Your task to perform on an android device: toggle translation in the chrome app Image 0: 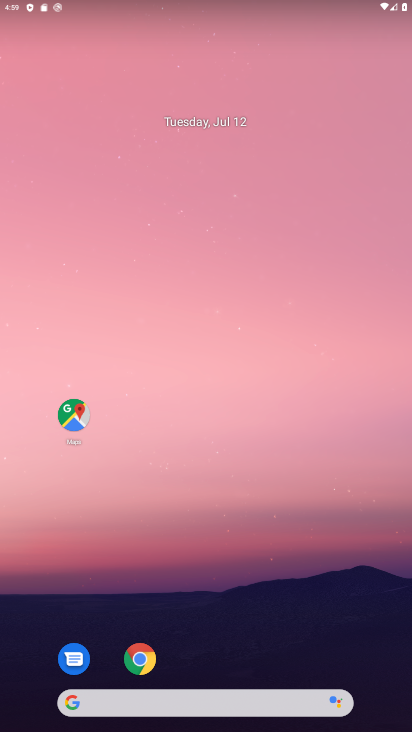
Step 0: click (140, 660)
Your task to perform on an android device: toggle translation in the chrome app Image 1: 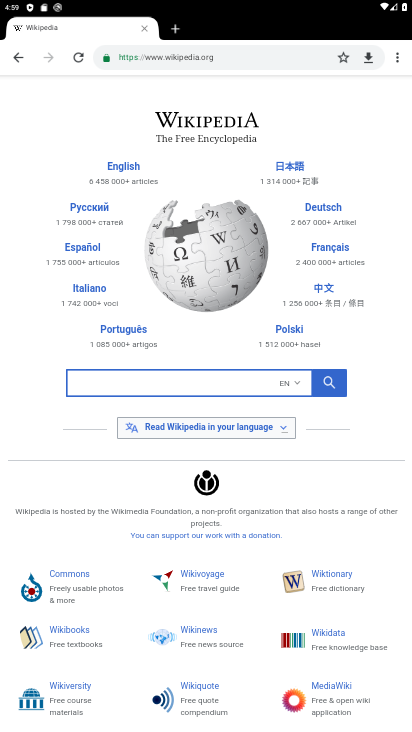
Step 1: click (400, 63)
Your task to perform on an android device: toggle translation in the chrome app Image 2: 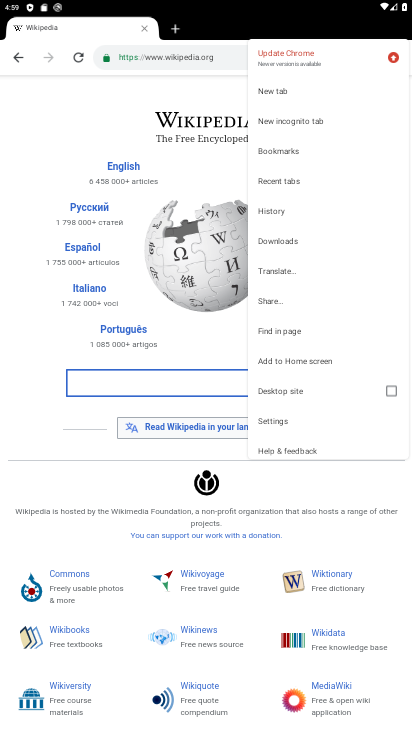
Step 2: click (273, 423)
Your task to perform on an android device: toggle translation in the chrome app Image 3: 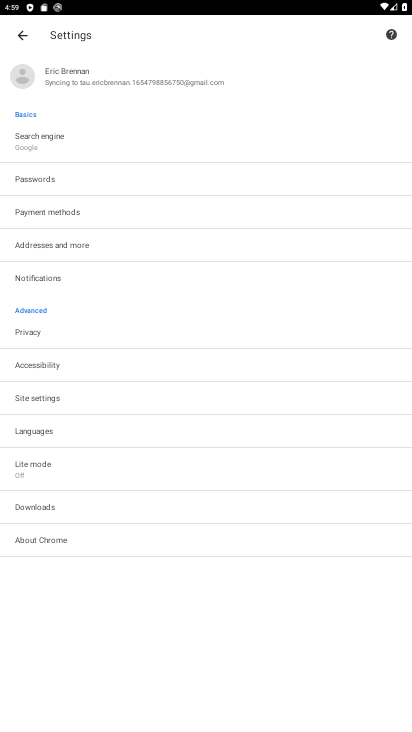
Step 3: click (32, 431)
Your task to perform on an android device: toggle translation in the chrome app Image 4: 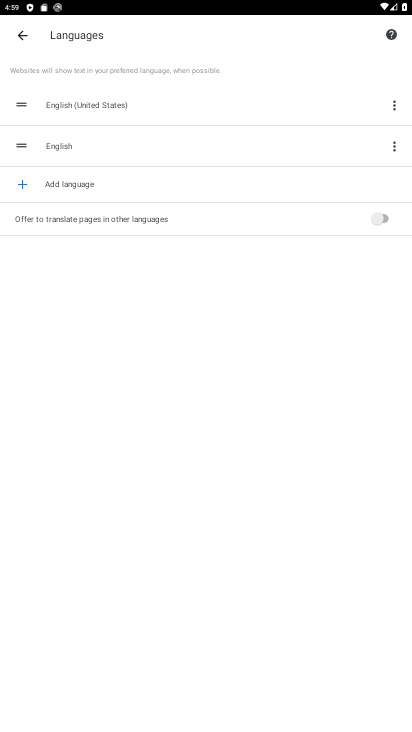
Step 4: click (383, 218)
Your task to perform on an android device: toggle translation in the chrome app Image 5: 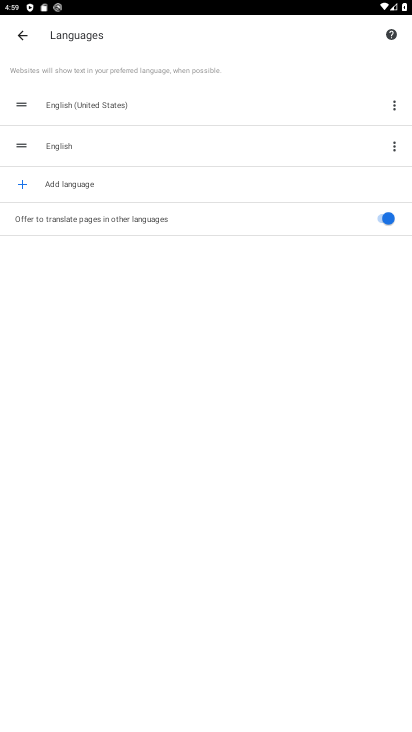
Step 5: task complete